Your task to perform on an android device: turn off priority inbox in the gmail app Image 0: 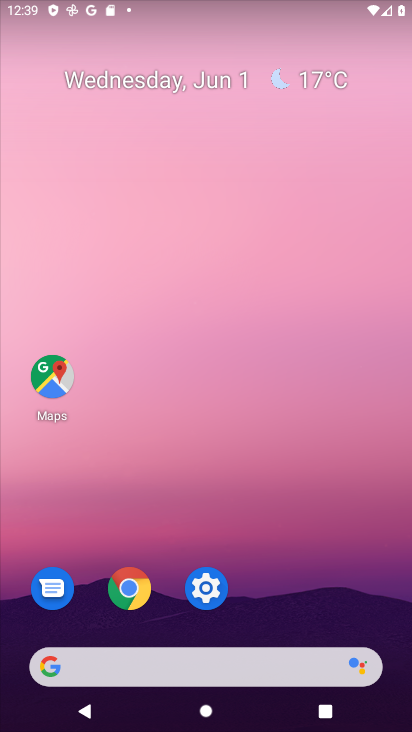
Step 0: press home button
Your task to perform on an android device: turn off priority inbox in the gmail app Image 1: 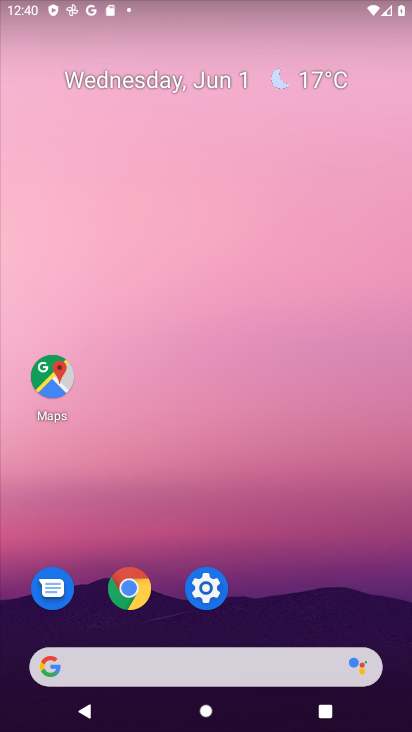
Step 1: drag from (127, 690) to (245, 214)
Your task to perform on an android device: turn off priority inbox in the gmail app Image 2: 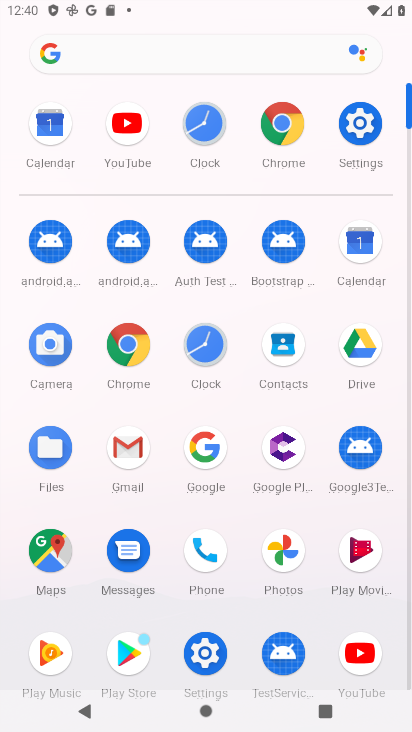
Step 2: click (112, 452)
Your task to perform on an android device: turn off priority inbox in the gmail app Image 3: 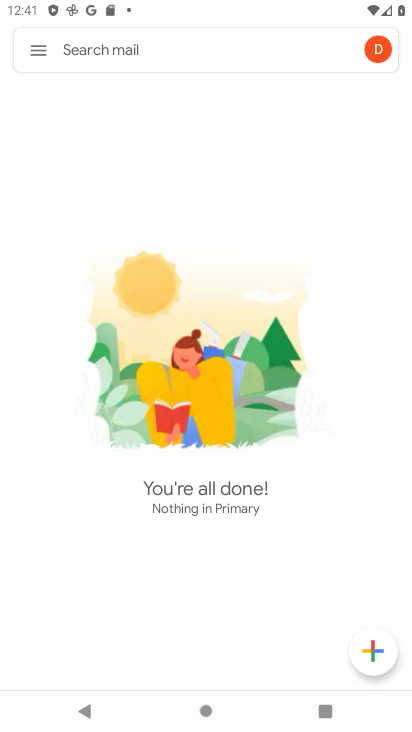
Step 3: click (26, 53)
Your task to perform on an android device: turn off priority inbox in the gmail app Image 4: 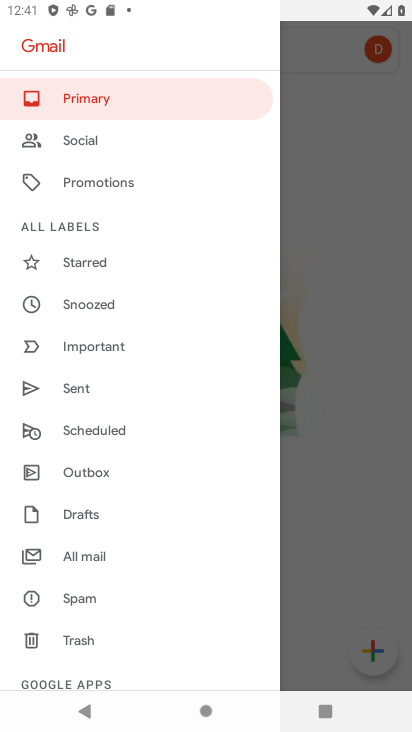
Step 4: drag from (104, 625) to (144, 452)
Your task to perform on an android device: turn off priority inbox in the gmail app Image 5: 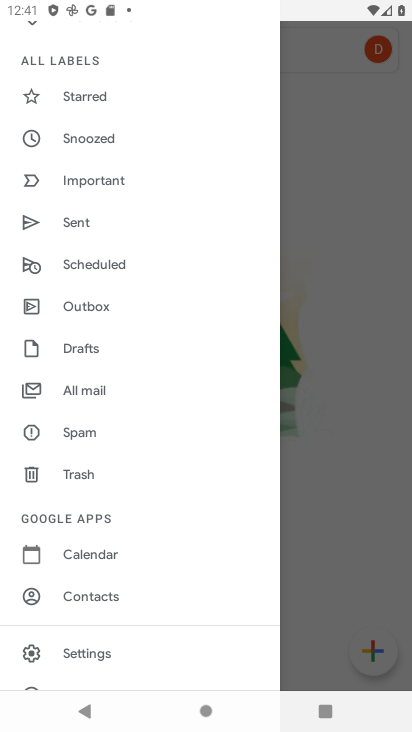
Step 5: click (74, 648)
Your task to perform on an android device: turn off priority inbox in the gmail app Image 6: 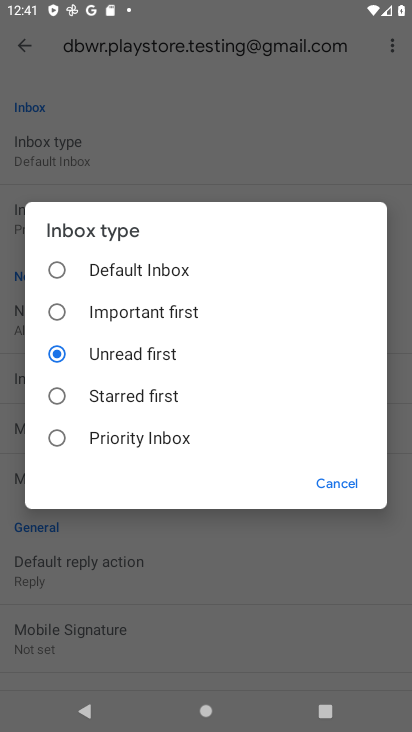
Step 6: click (152, 276)
Your task to perform on an android device: turn off priority inbox in the gmail app Image 7: 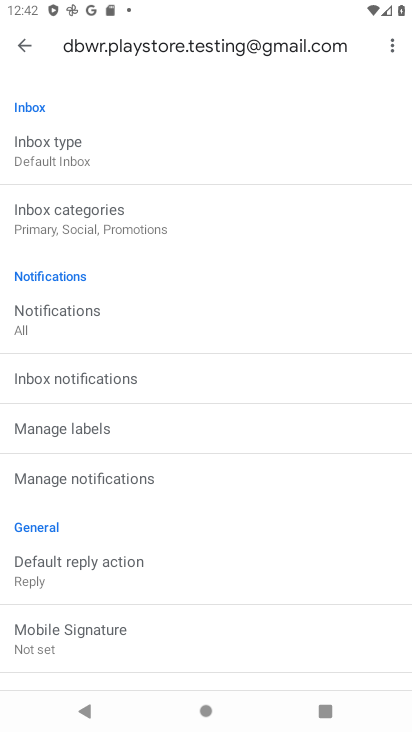
Step 7: task complete